Your task to perform on an android device: Turn on the flashlight Image 0: 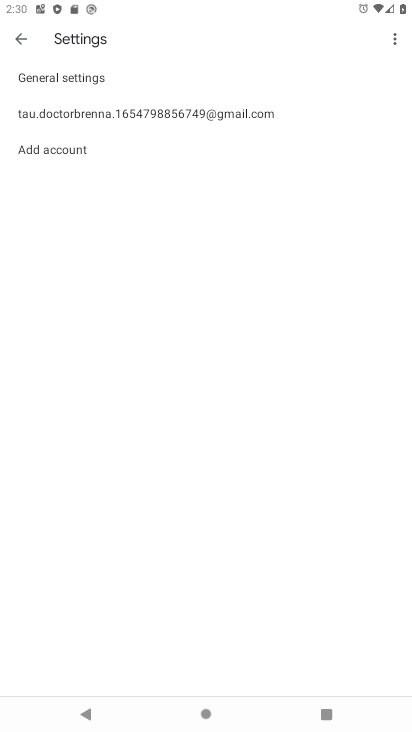
Step 0: press home button
Your task to perform on an android device: Turn on the flashlight Image 1: 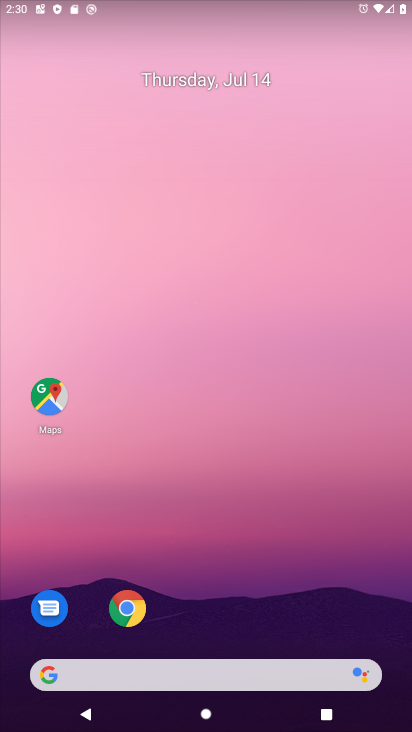
Step 1: drag from (237, 721) to (236, 212)
Your task to perform on an android device: Turn on the flashlight Image 2: 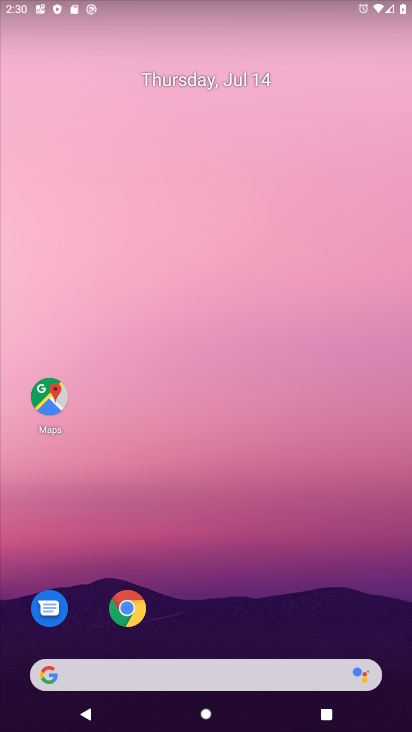
Step 2: drag from (232, 724) to (231, 195)
Your task to perform on an android device: Turn on the flashlight Image 3: 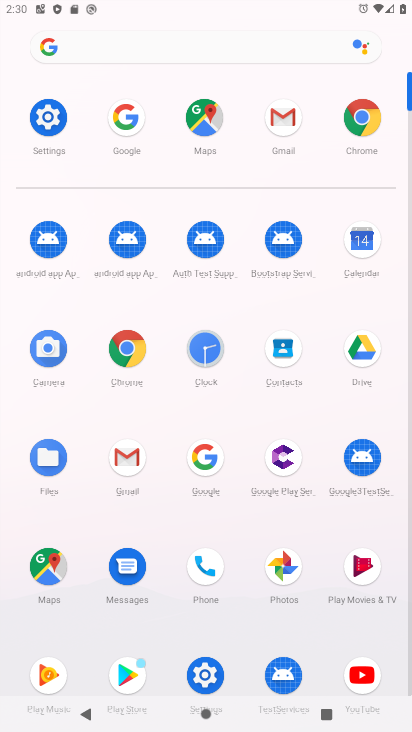
Step 3: click (52, 111)
Your task to perform on an android device: Turn on the flashlight Image 4: 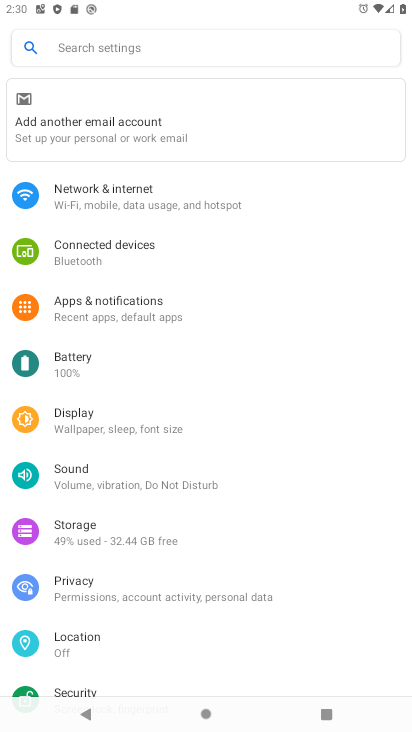
Step 4: task complete